Your task to perform on an android device: uninstall "Instagram" Image 0: 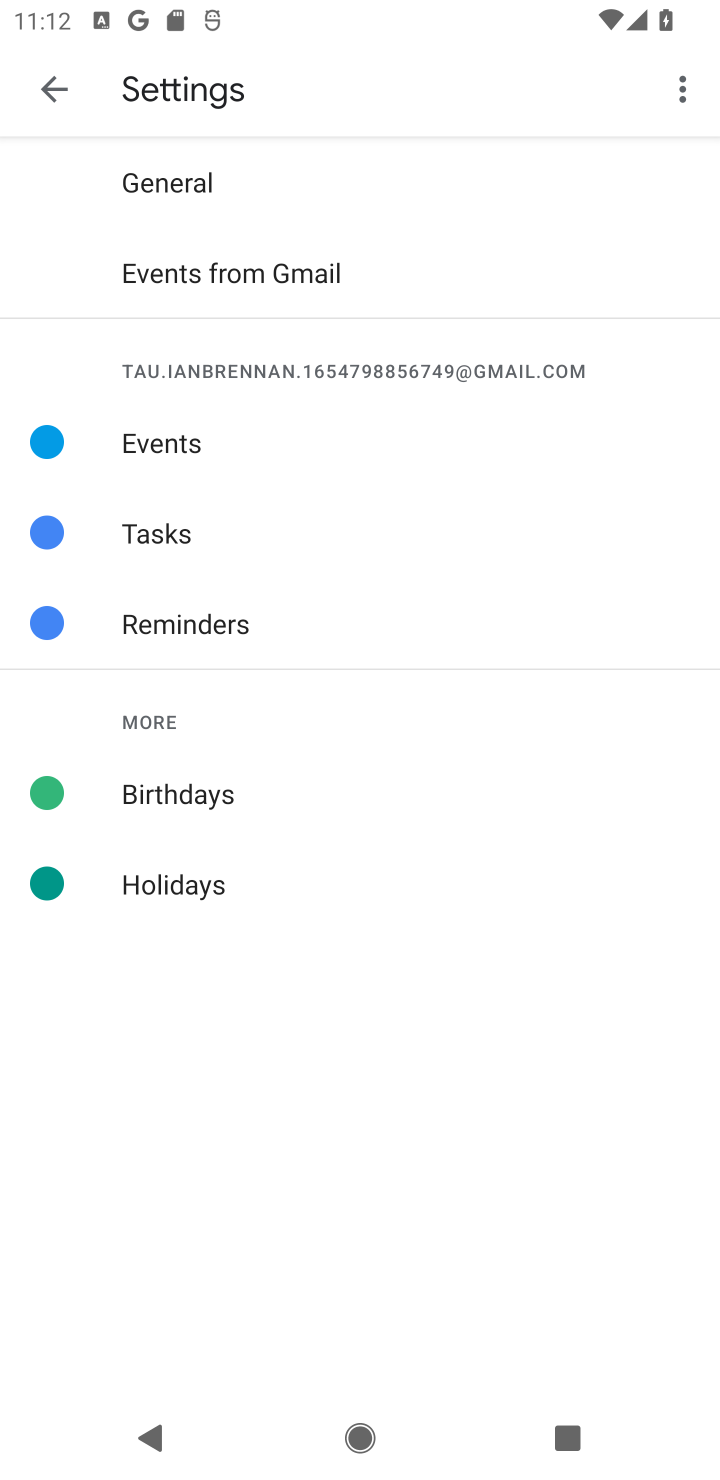
Step 0: press back button
Your task to perform on an android device: uninstall "Instagram" Image 1: 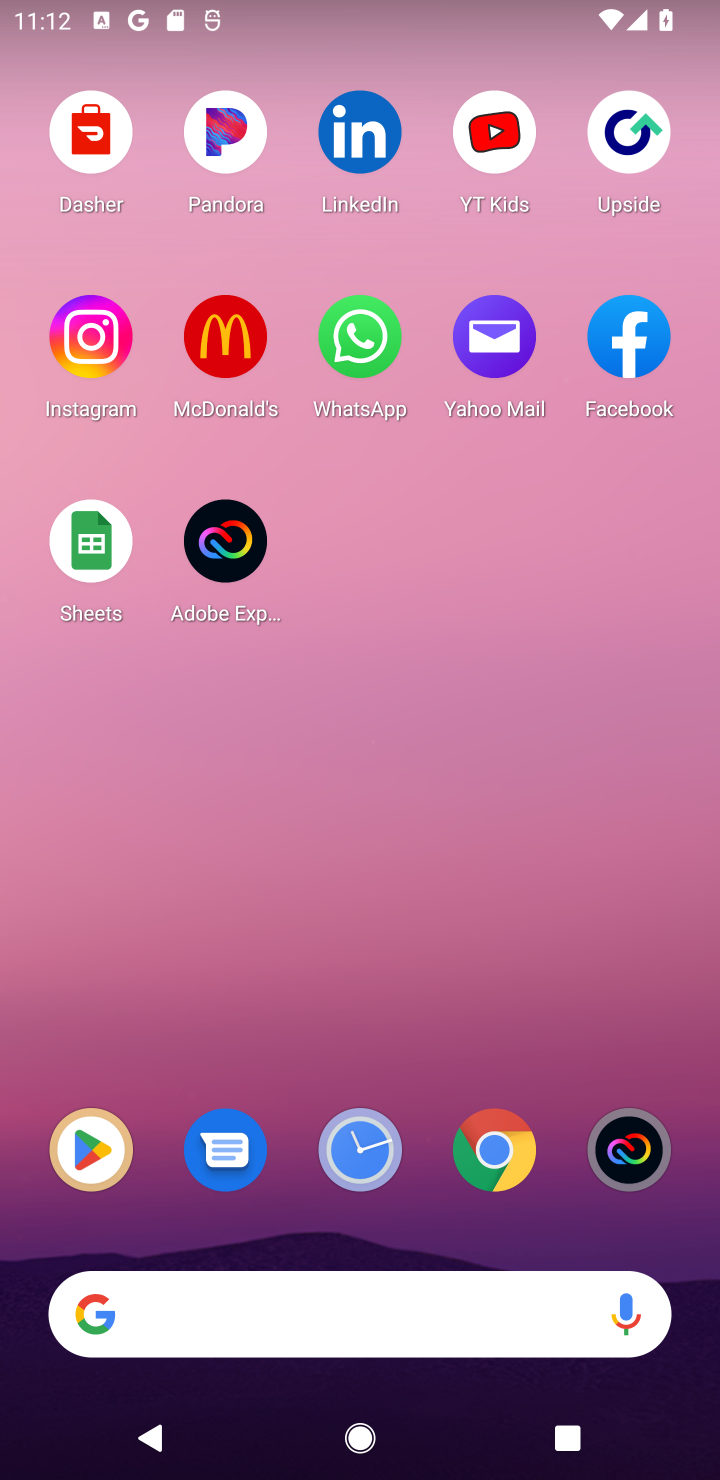
Step 1: click (90, 1168)
Your task to perform on an android device: uninstall "Instagram" Image 2: 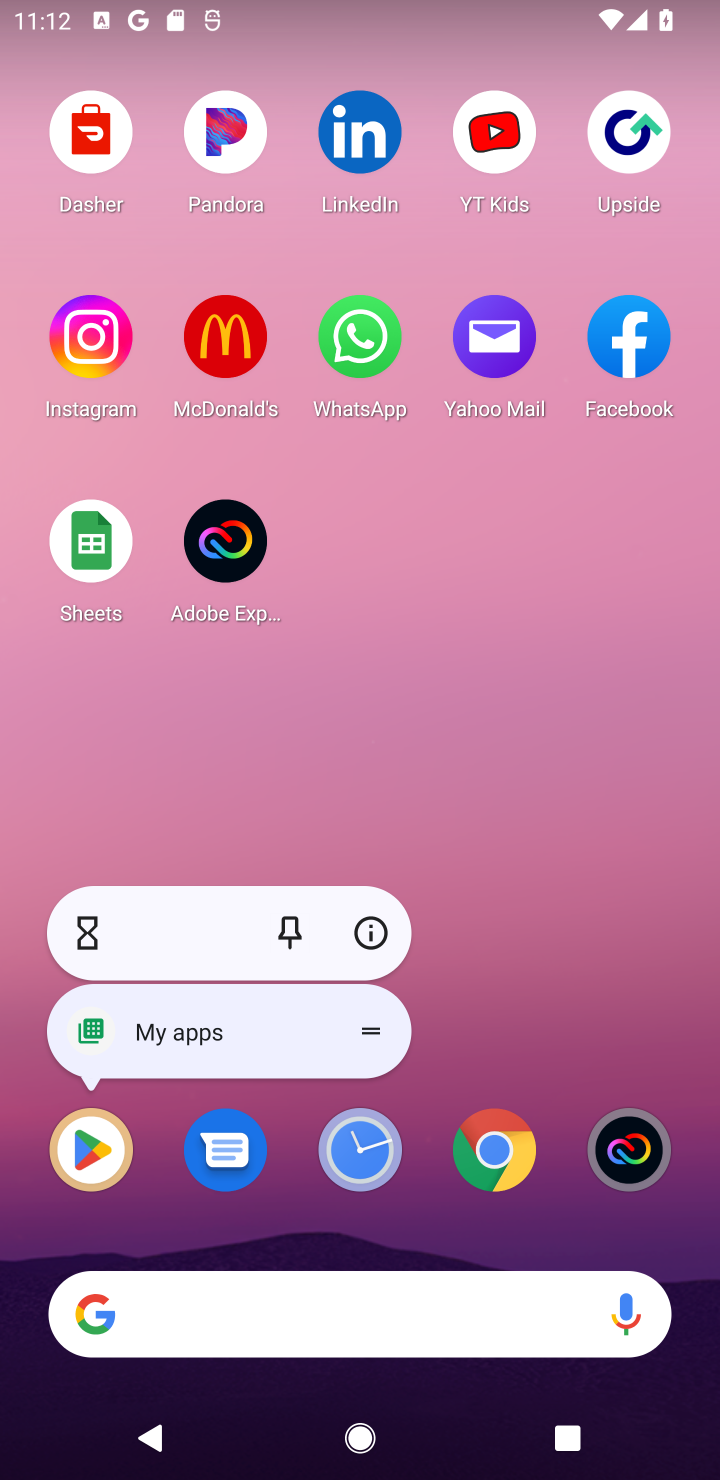
Step 2: click (99, 1143)
Your task to perform on an android device: uninstall "Instagram" Image 3: 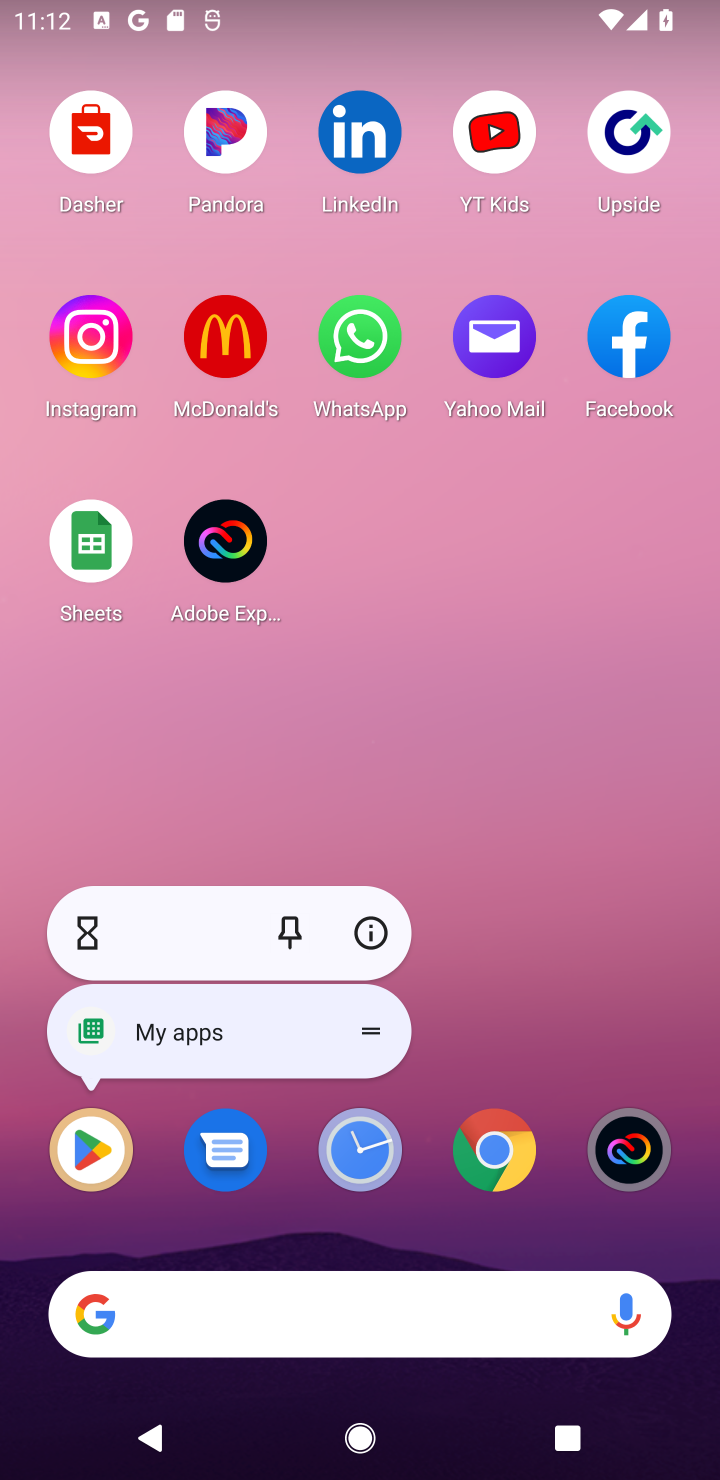
Step 3: click (86, 1159)
Your task to perform on an android device: uninstall "Instagram" Image 4: 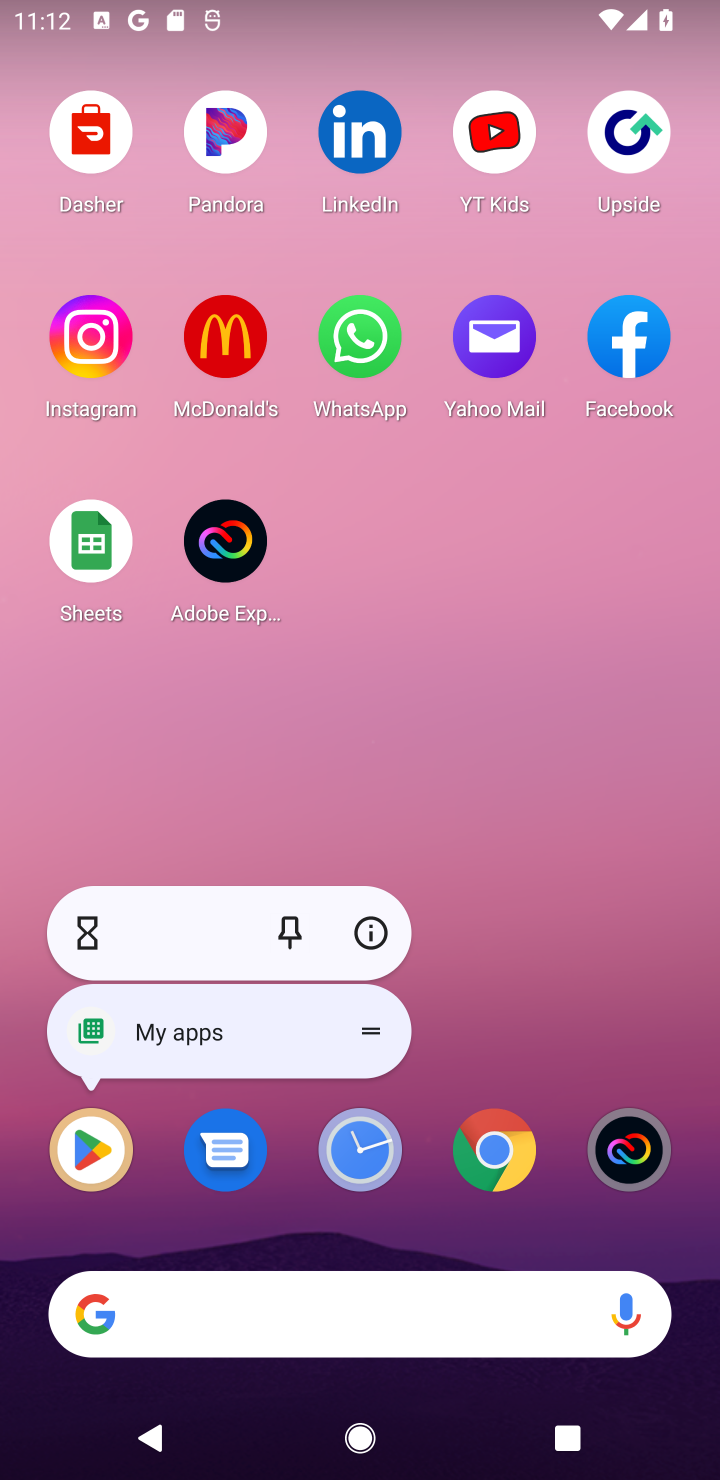
Step 4: click (92, 333)
Your task to perform on an android device: uninstall "Instagram" Image 5: 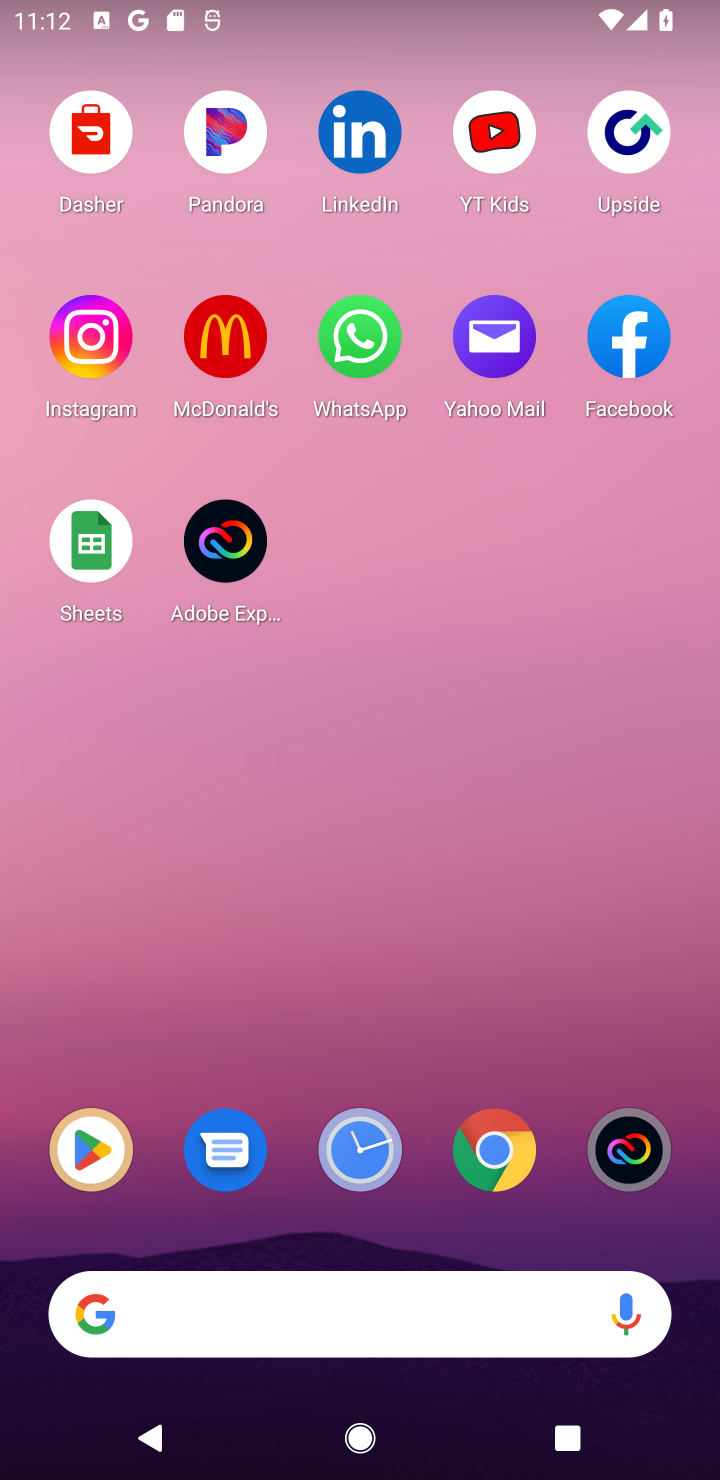
Step 5: click (84, 361)
Your task to perform on an android device: uninstall "Instagram" Image 6: 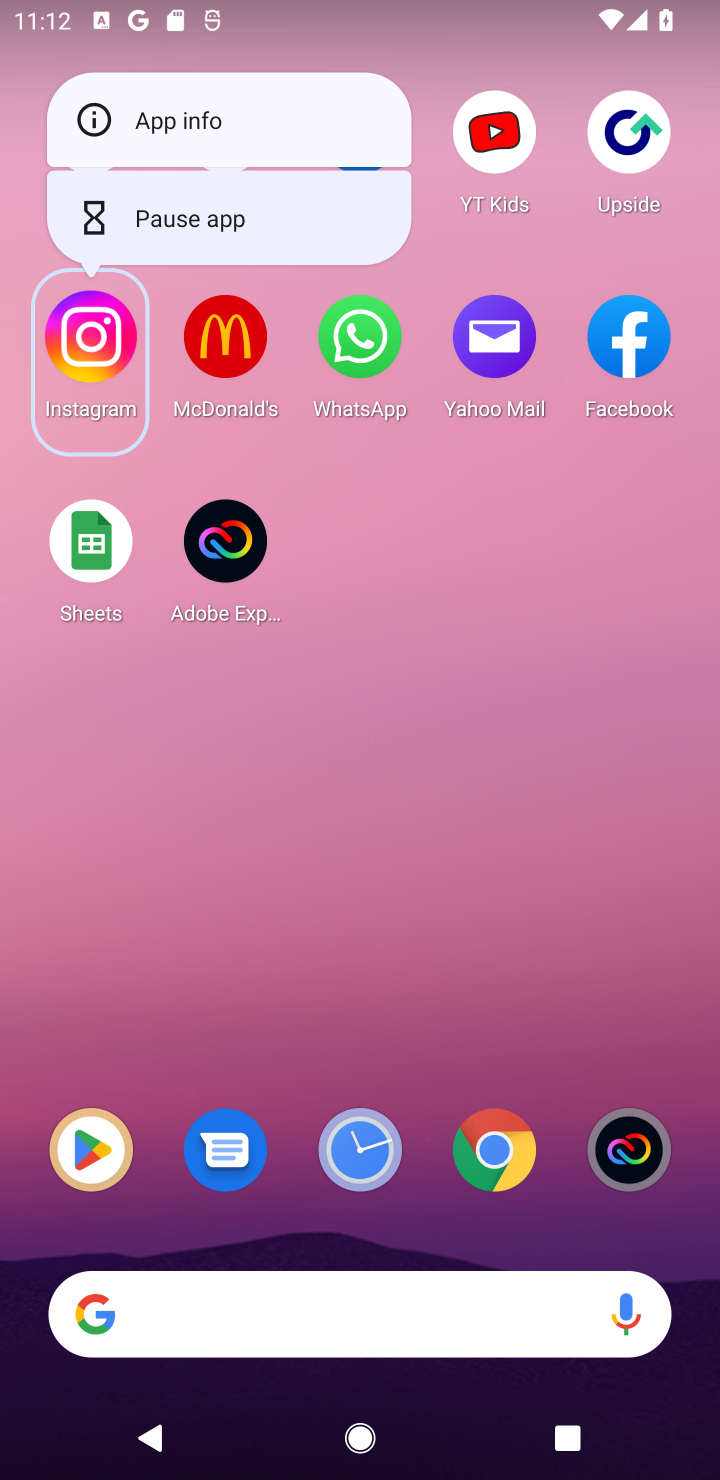
Step 6: click (220, 129)
Your task to perform on an android device: uninstall "Instagram" Image 7: 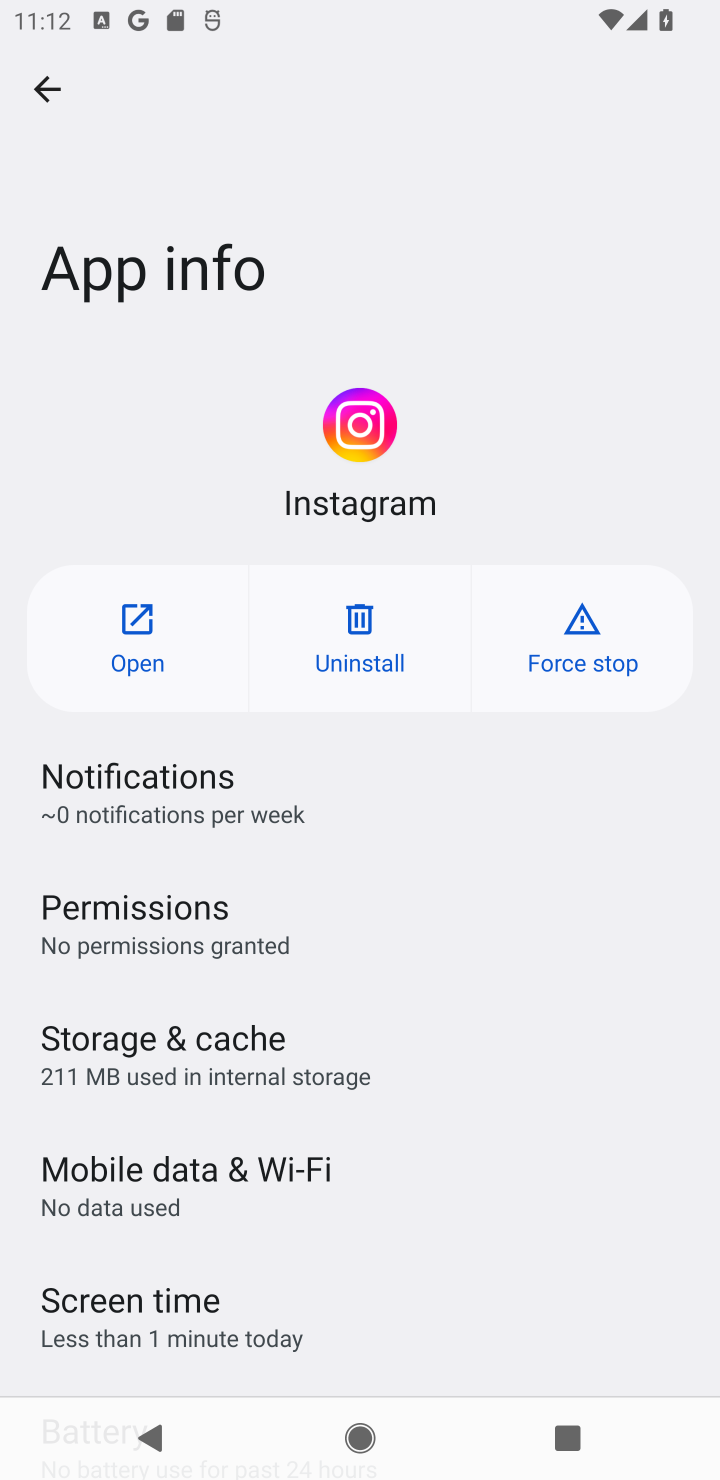
Step 7: drag from (391, 1265) to (628, 78)
Your task to perform on an android device: uninstall "Instagram" Image 8: 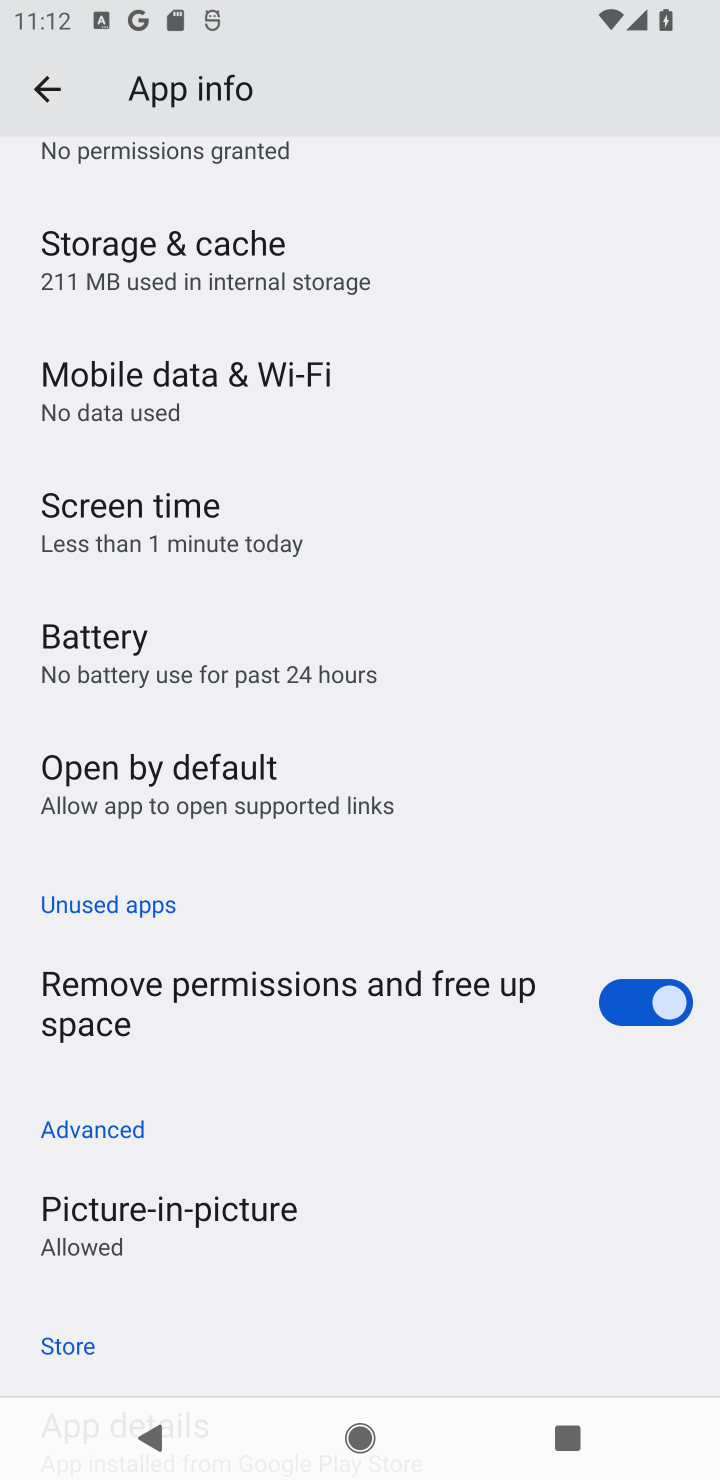
Step 8: drag from (395, 1215) to (591, 41)
Your task to perform on an android device: uninstall "Instagram" Image 9: 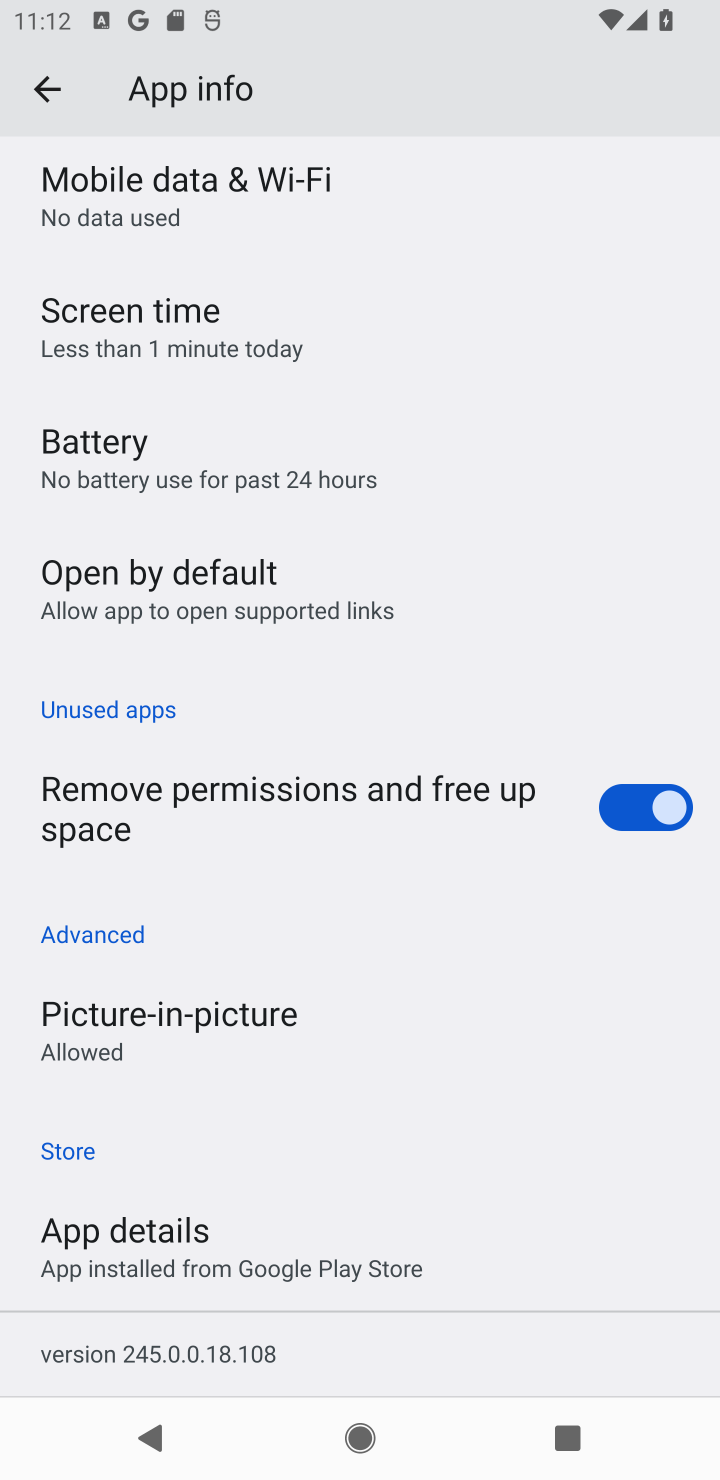
Step 9: drag from (338, 1267) to (489, 159)
Your task to perform on an android device: uninstall "Instagram" Image 10: 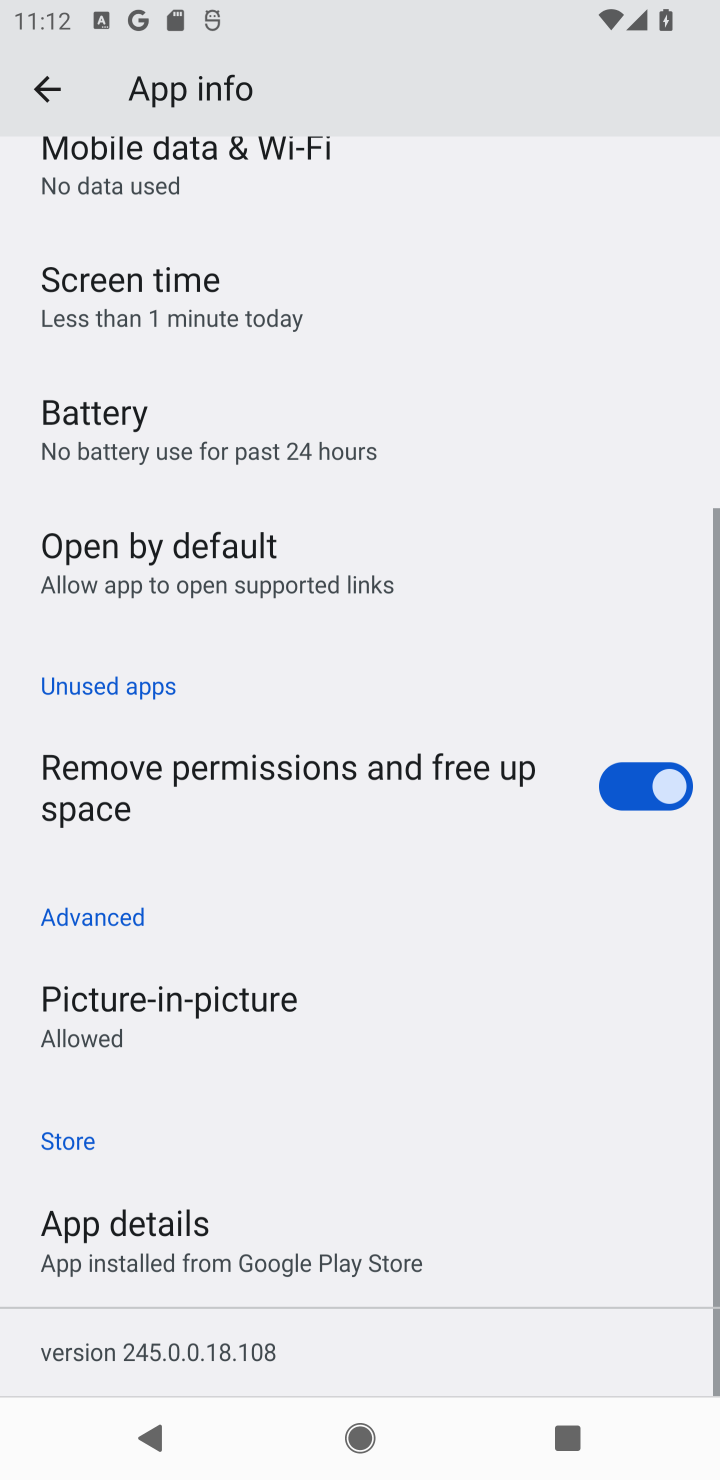
Step 10: click (39, 84)
Your task to perform on an android device: uninstall "Instagram" Image 11: 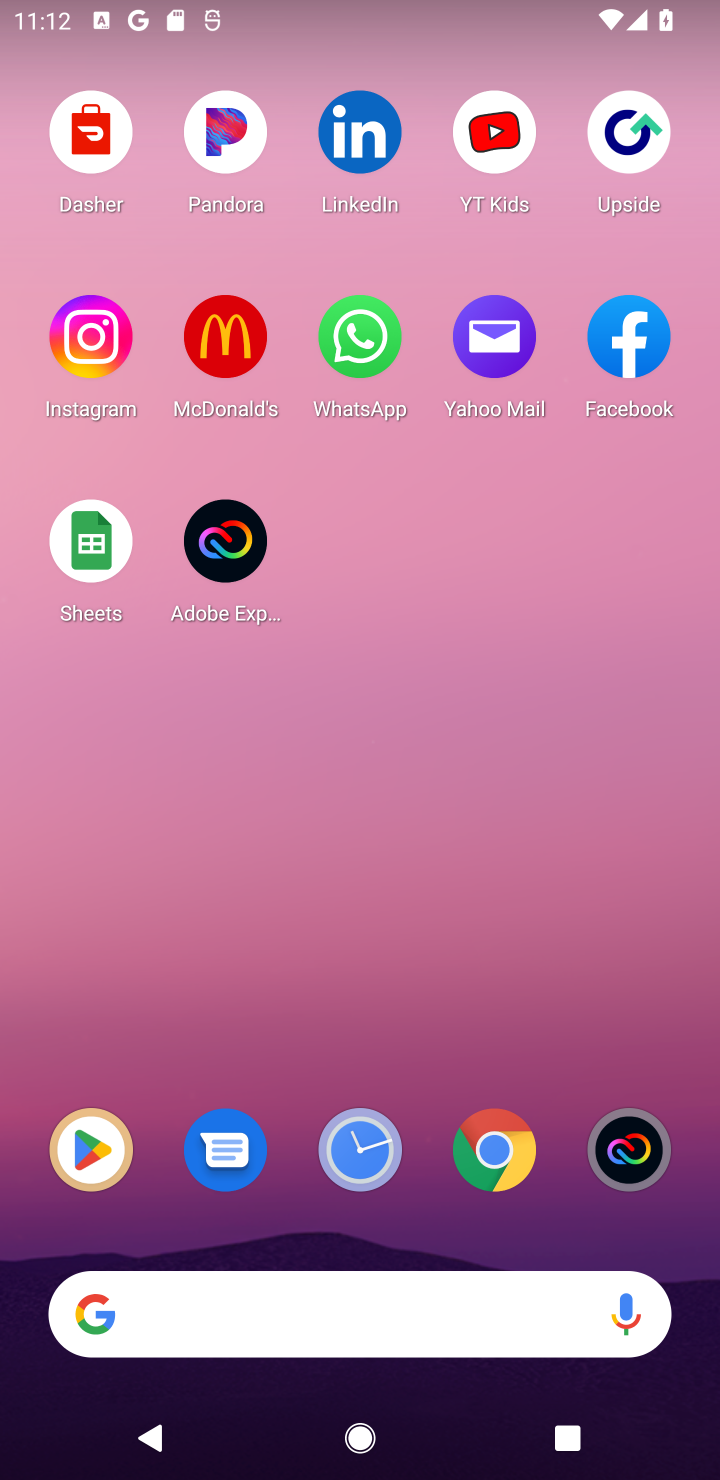
Step 11: click (104, 1153)
Your task to perform on an android device: uninstall "Instagram" Image 12: 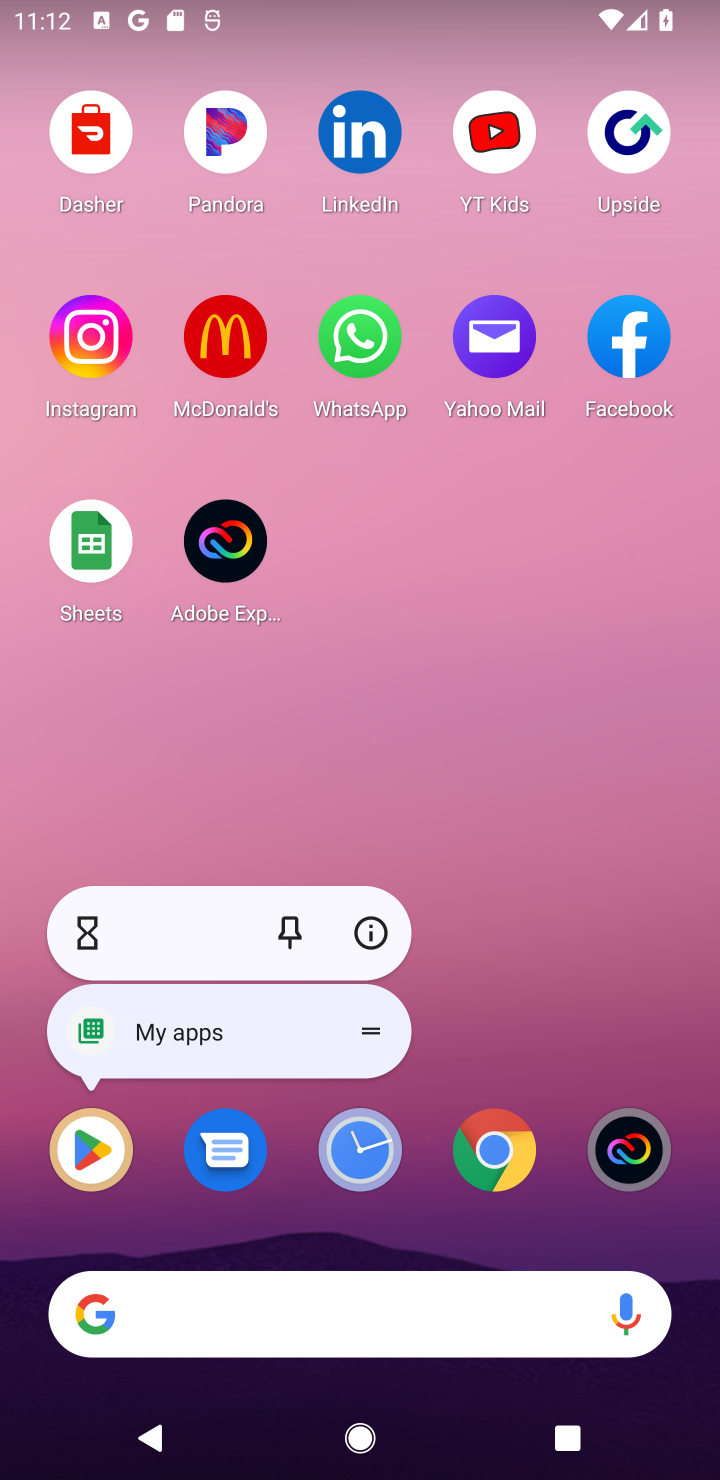
Step 12: click (96, 1147)
Your task to perform on an android device: uninstall "Instagram" Image 13: 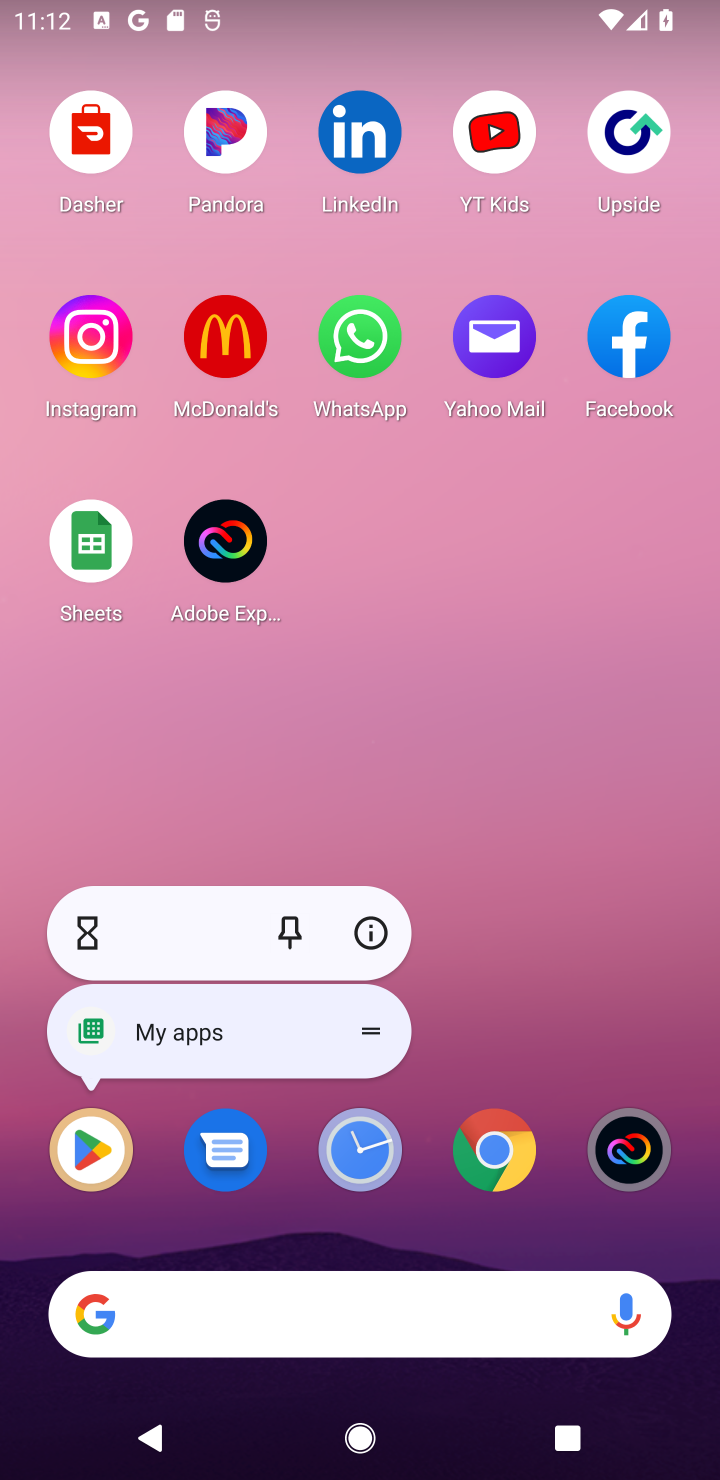
Step 13: click (114, 1186)
Your task to perform on an android device: uninstall "Instagram" Image 14: 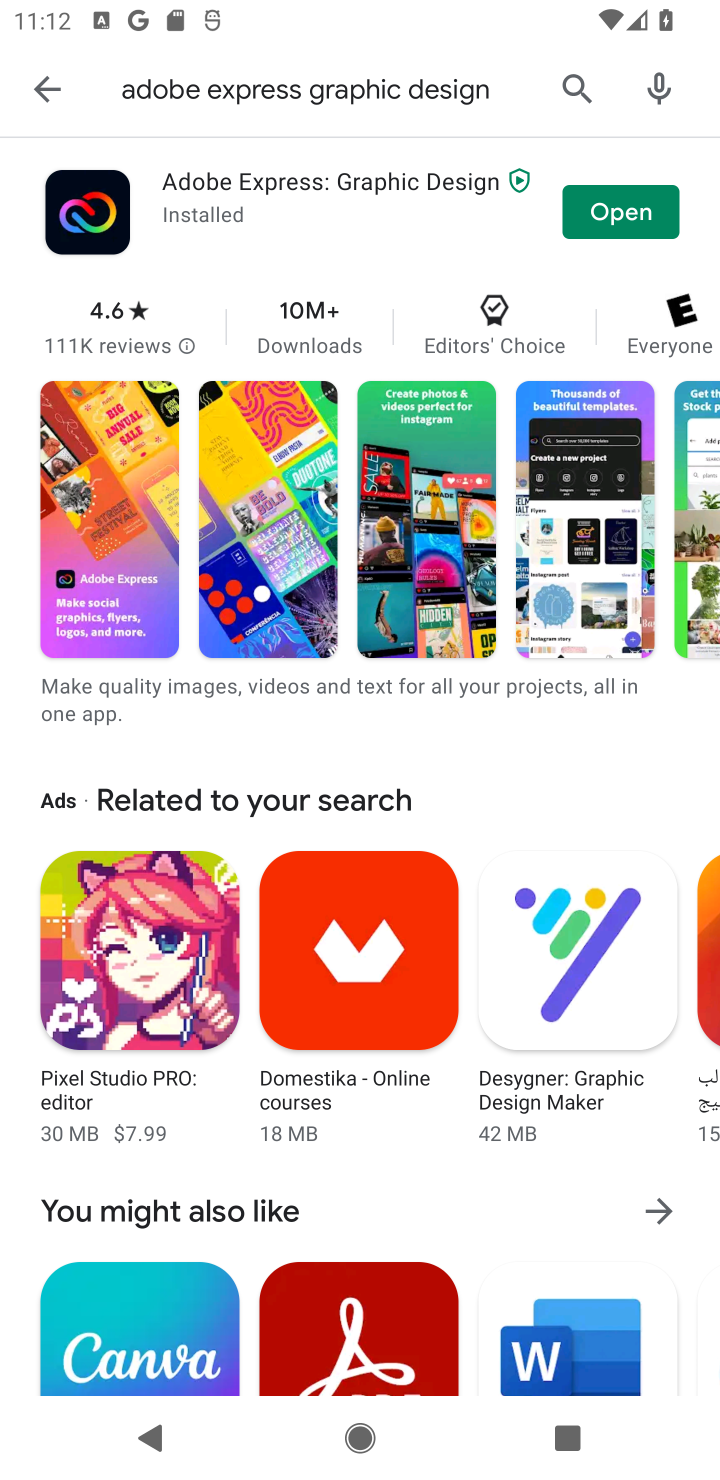
Step 14: click (571, 79)
Your task to perform on an android device: uninstall "Instagram" Image 15: 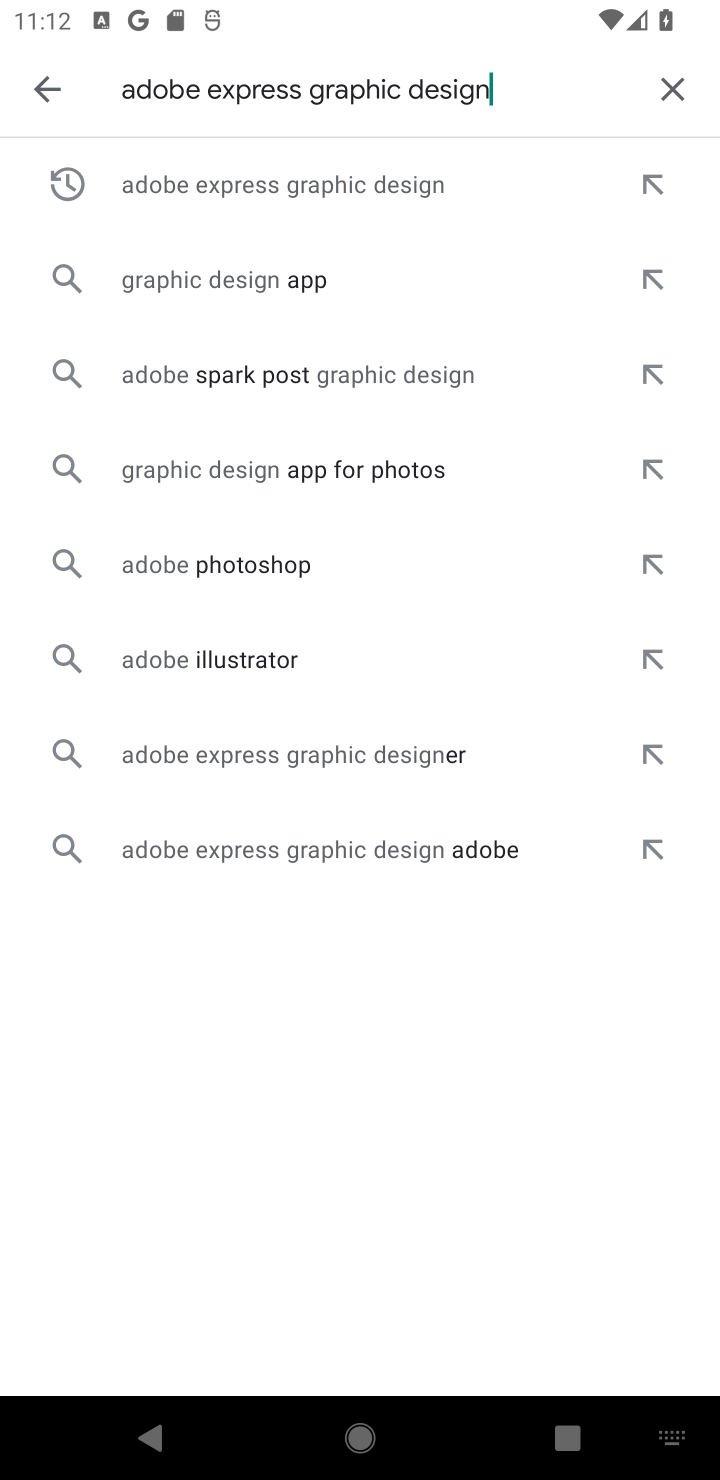
Step 15: click (681, 91)
Your task to perform on an android device: uninstall "Instagram" Image 16: 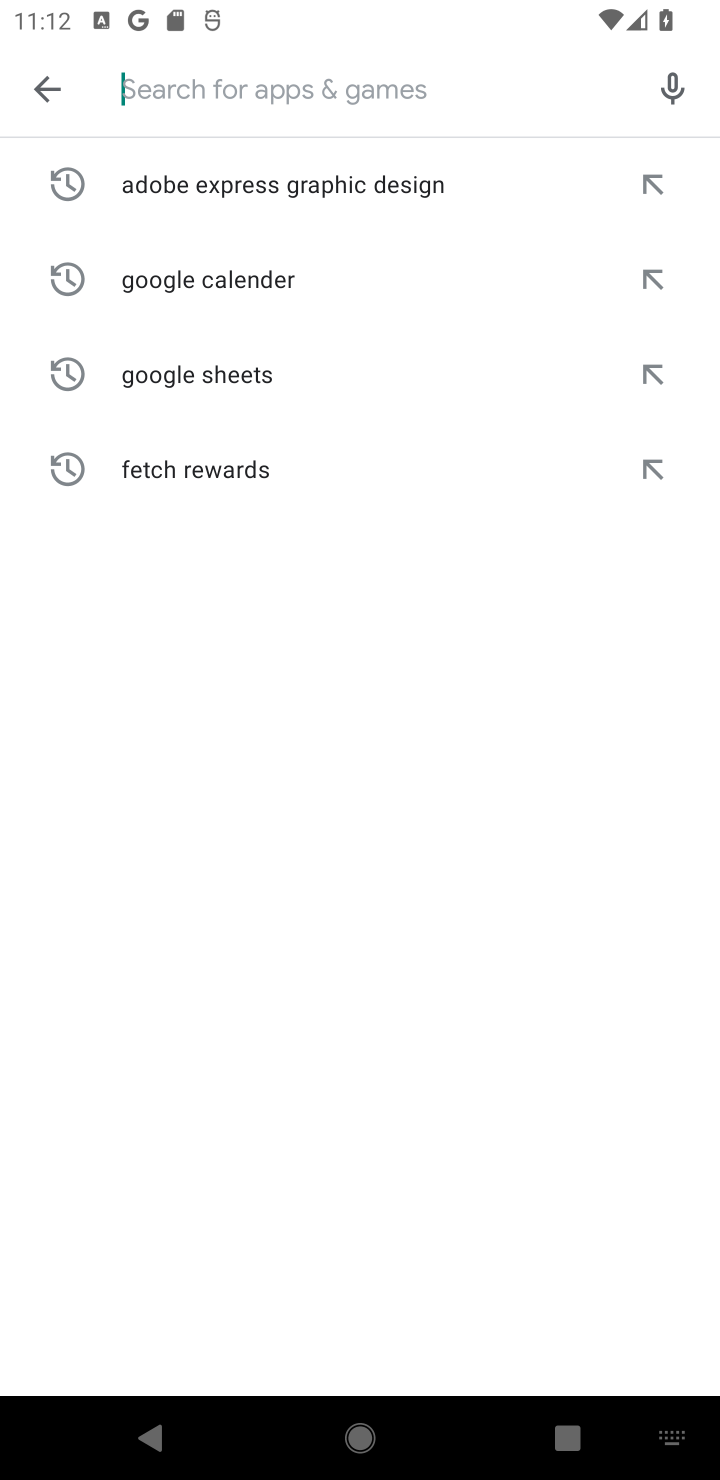
Step 16: click (418, 92)
Your task to perform on an android device: uninstall "Instagram" Image 17: 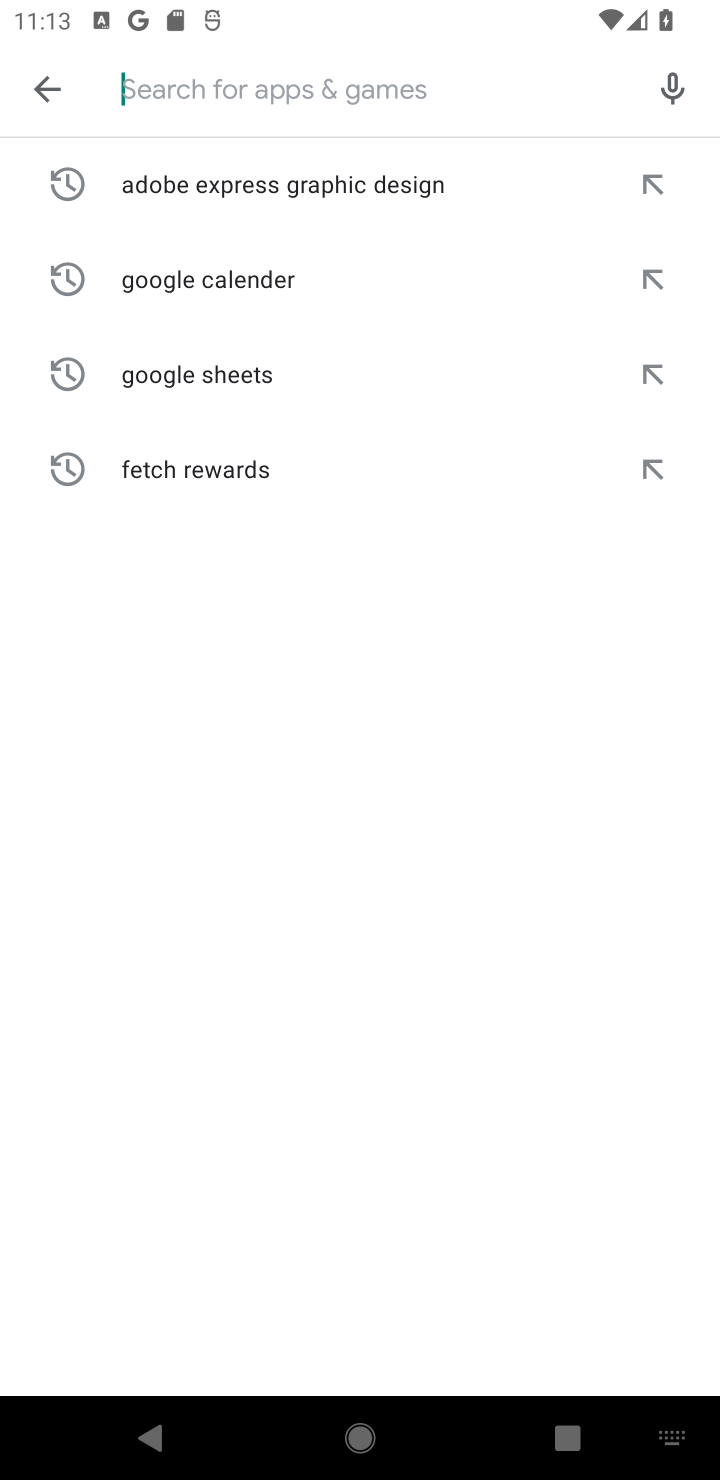
Step 17: click (418, 92)
Your task to perform on an android device: uninstall "Instagram" Image 18: 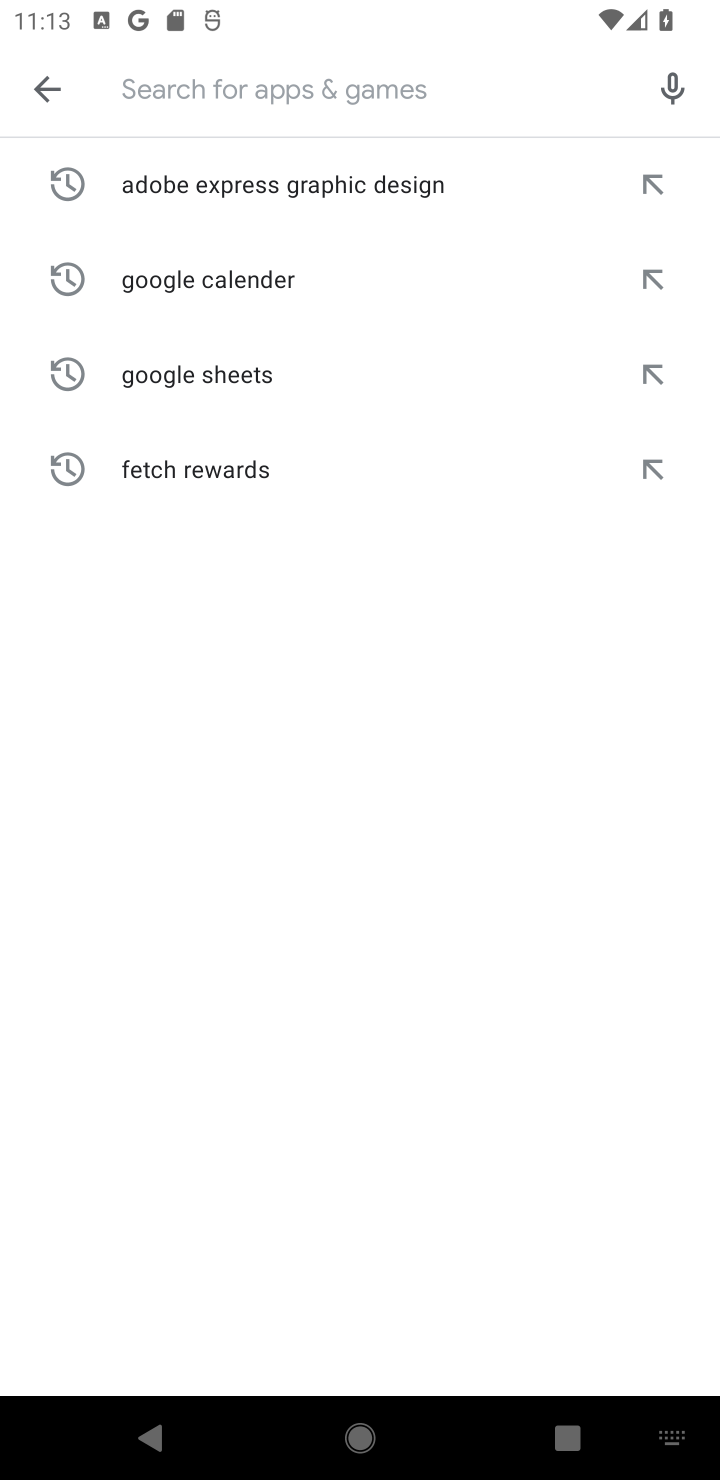
Step 18: type "instagram"
Your task to perform on an android device: uninstall "Instagram" Image 19: 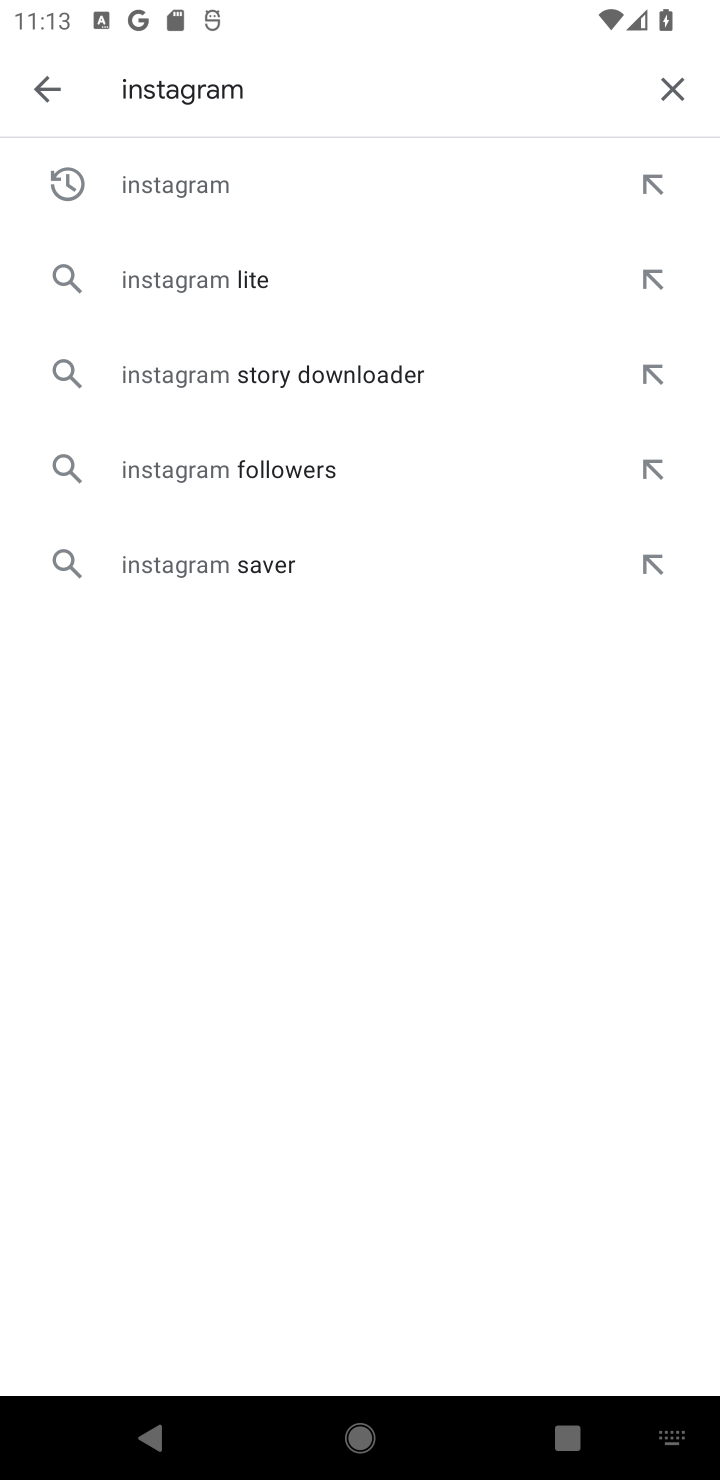
Step 19: click (186, 194)
Your task to perform on an android device: uninstall "Instagram" Image 20: 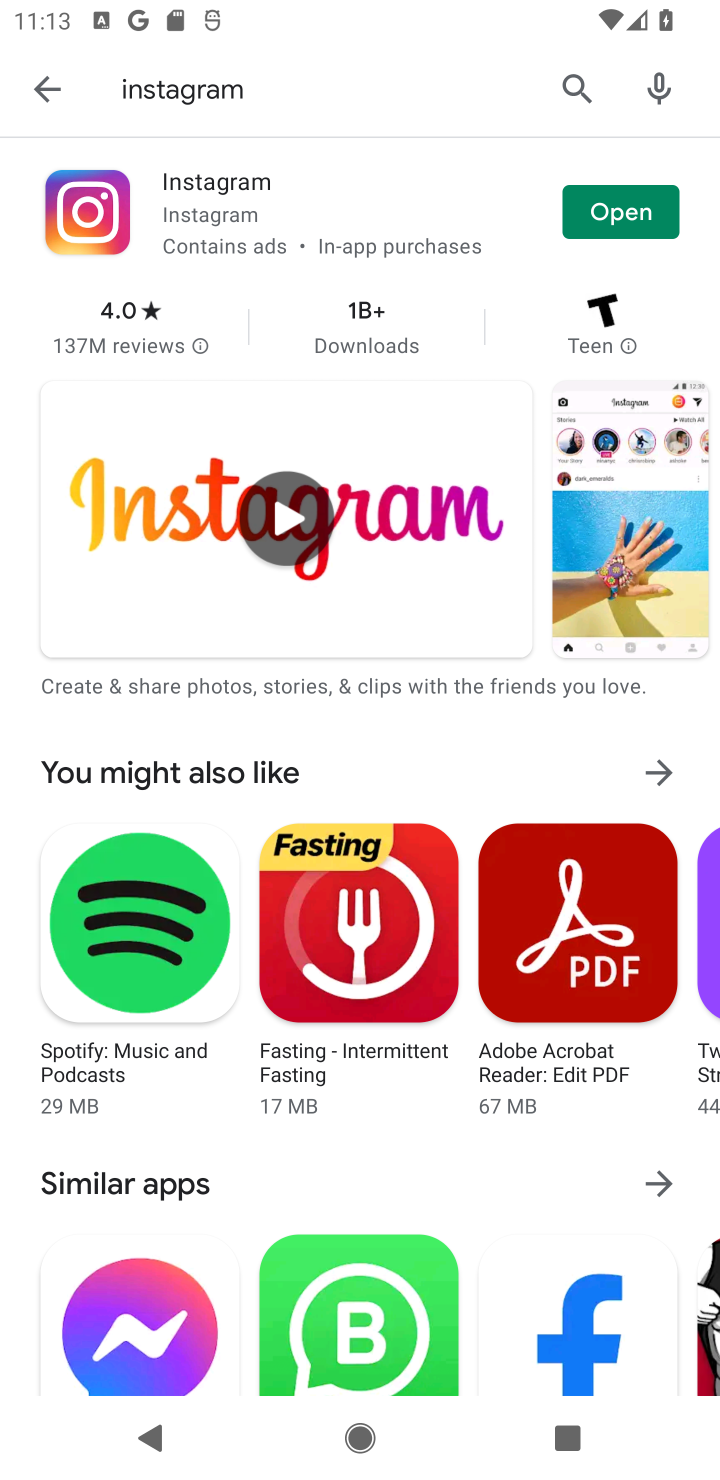
Step 20: click (320, 221)
Your task to perform on an android device: uninstall "Instagram" Image 21: 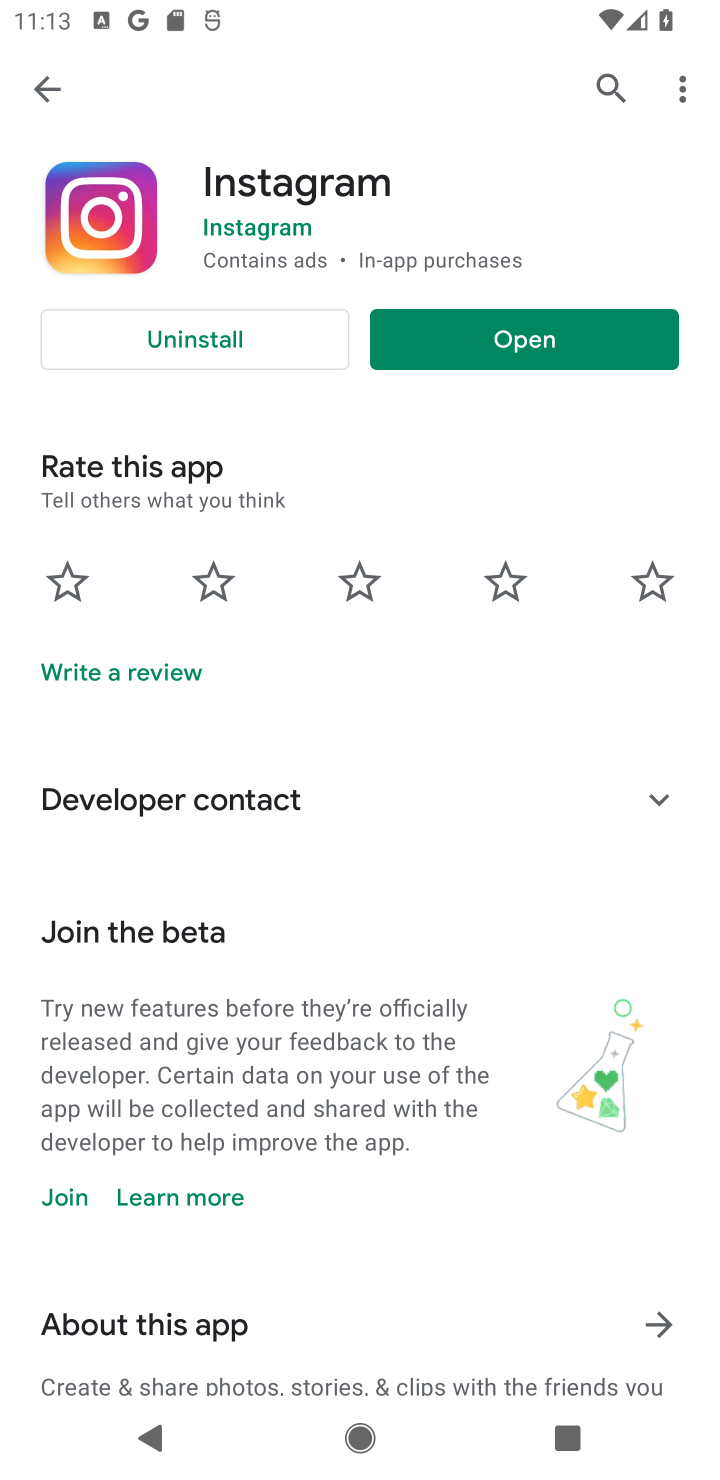
Step 21: click (225, 351)
Your task to perform on an android device: uninstall "Instagram" Image 22: 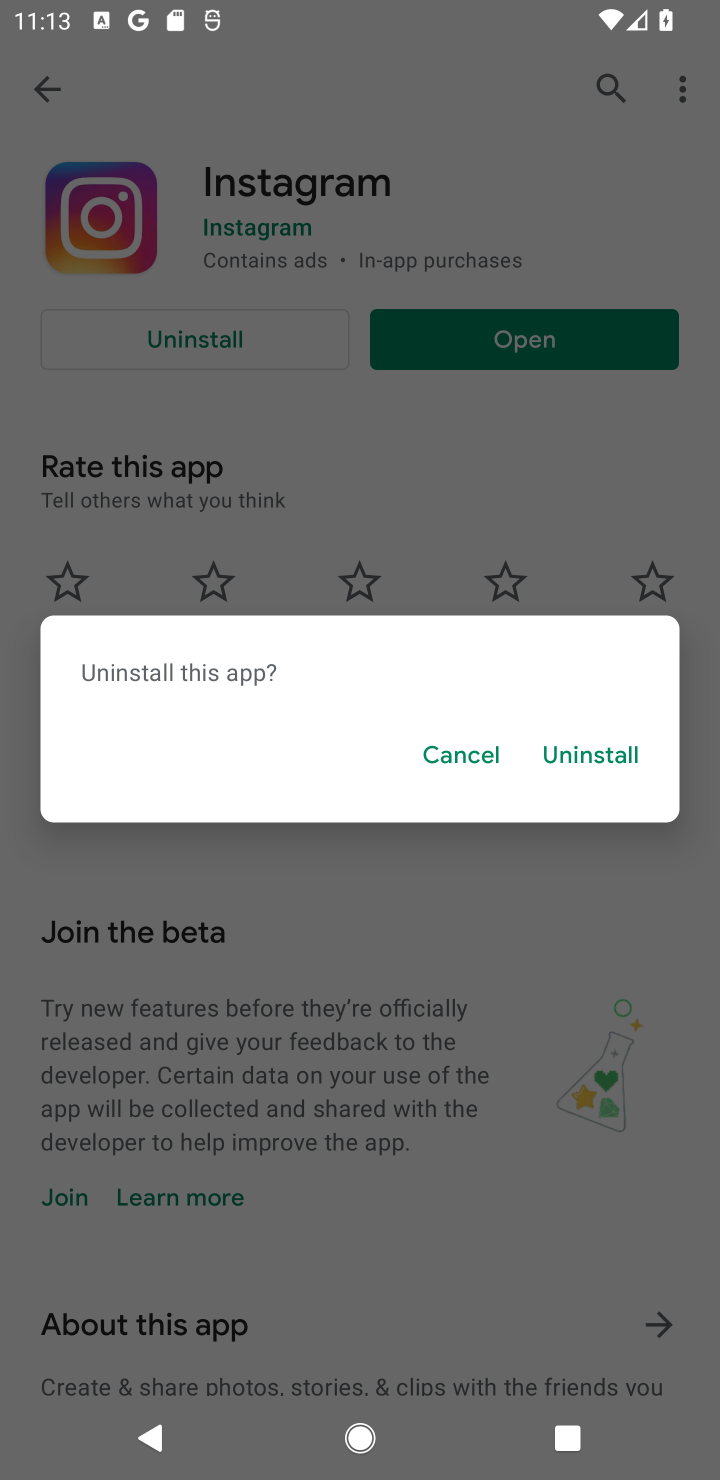
Step 22: click (617, 774)
Your task to perform on an android device: uninstall "Instagram" Image 23: 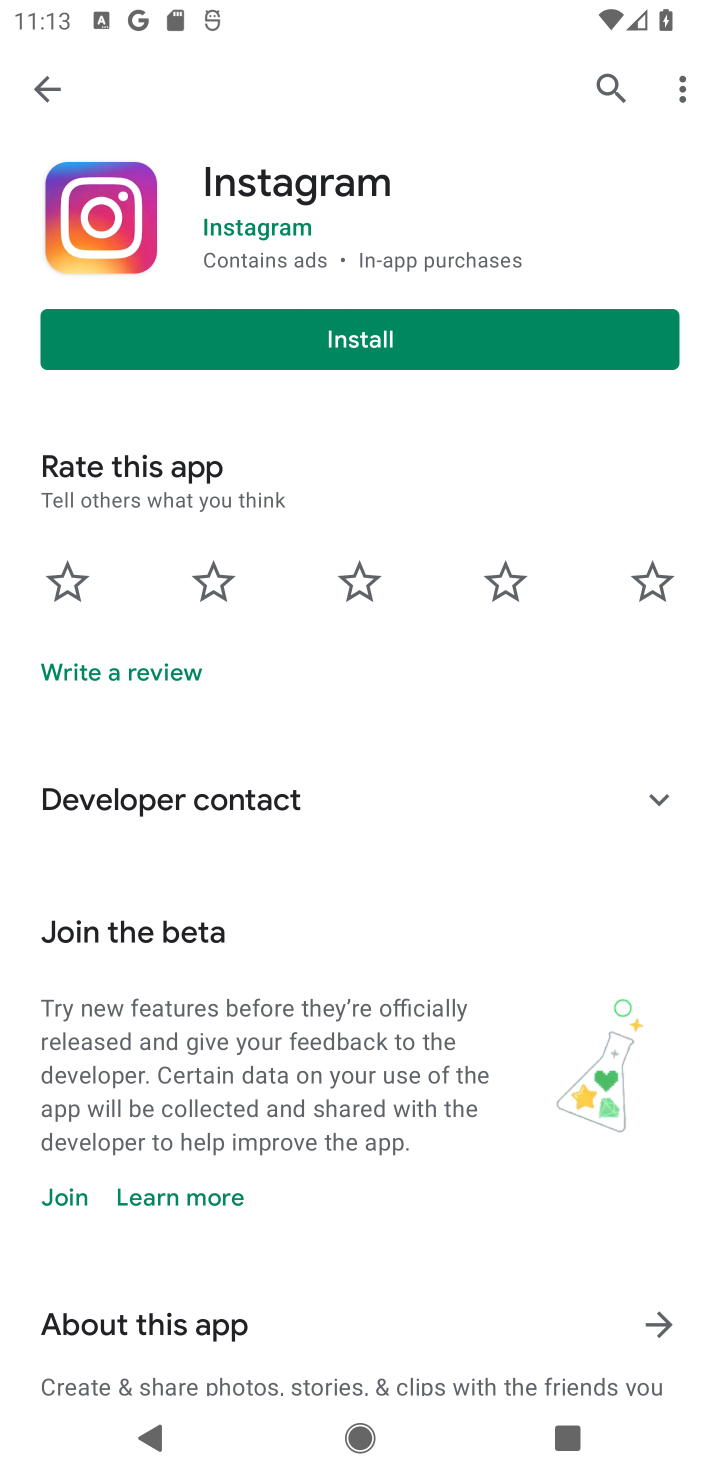
Step 23: task complete